Your task to perform on an android device: open a new tab in the chrome app Image 0: 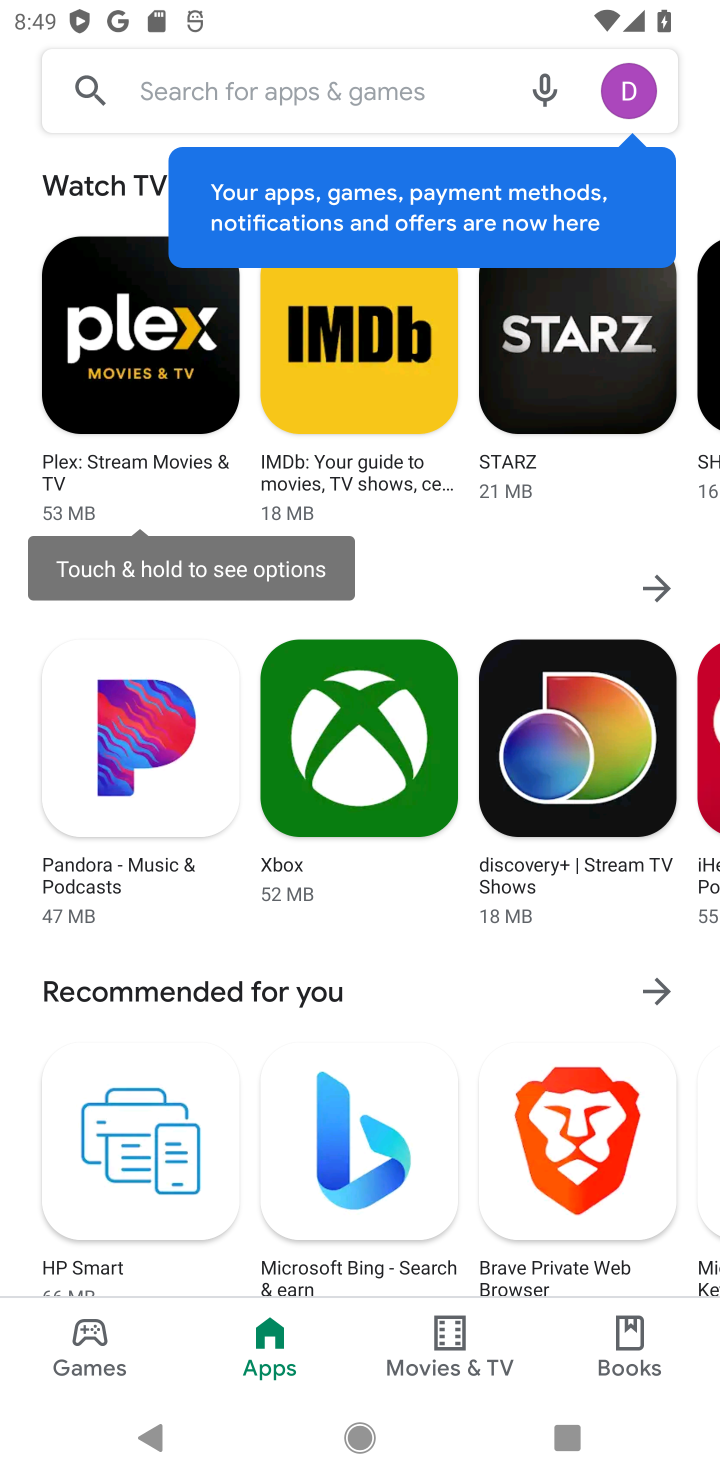
Step 0: press home button
Your task to perform on an android device: open a new tab in the chrome app Image 1: 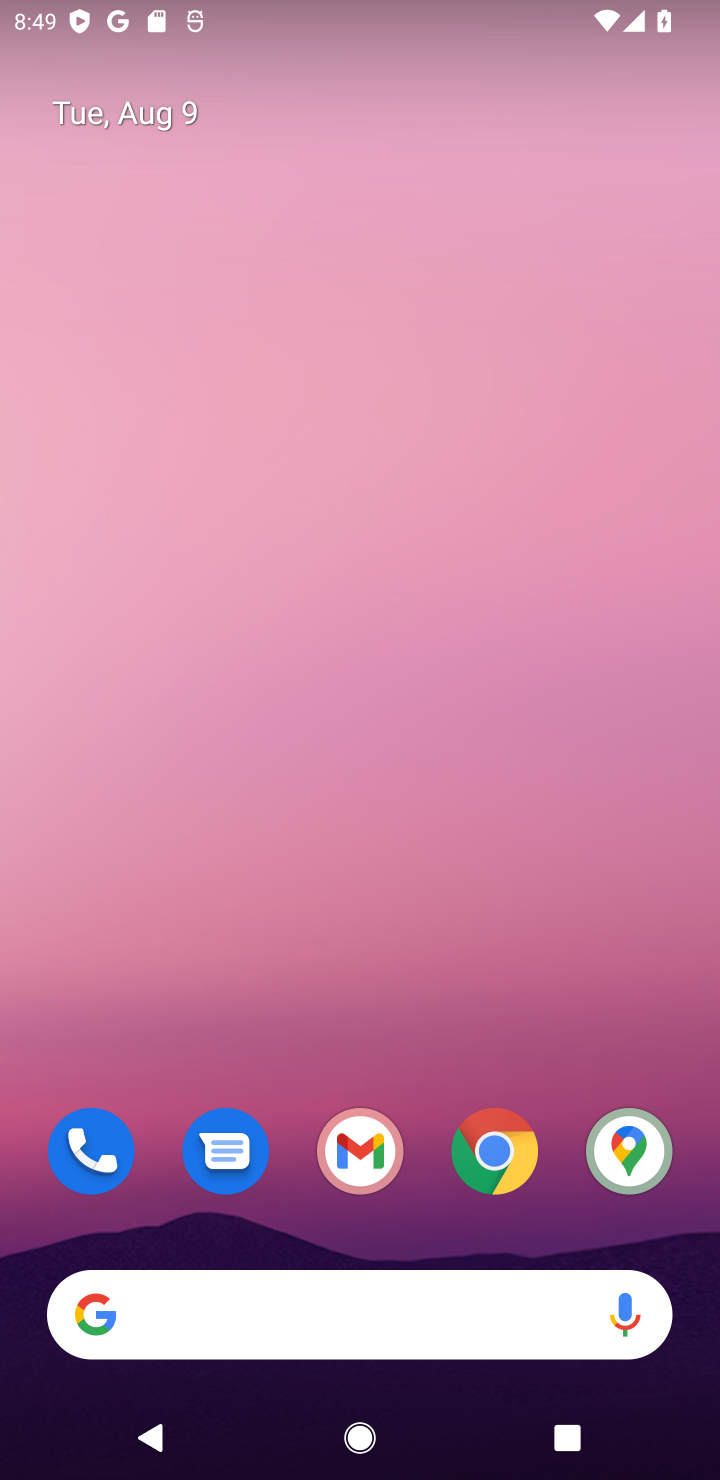
Step 1: click (496, 1141)
Your task to perform on an android device: open a new tab in the chrome app Image 2: 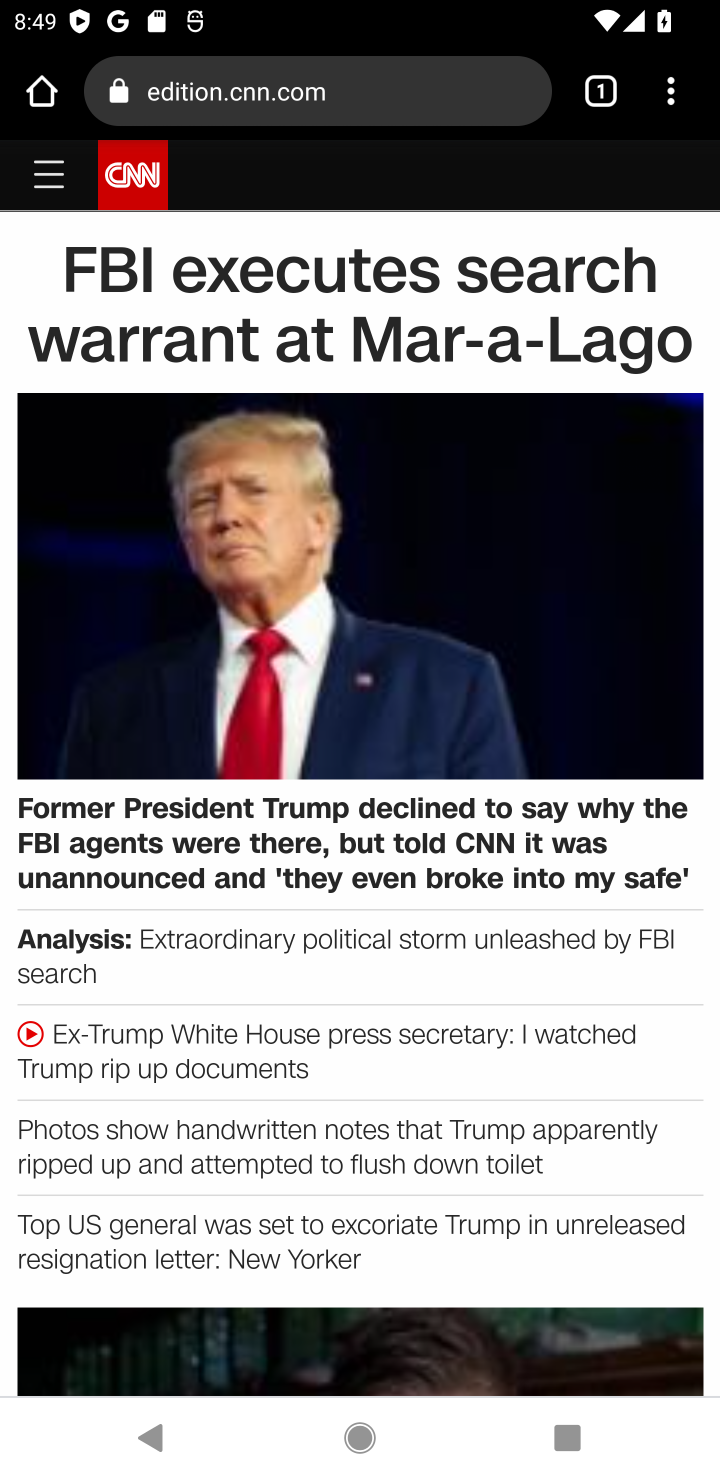
Step 2: click (595, 83)
Your task to perform on an android device: open a new tab in the chrome app Image 3: 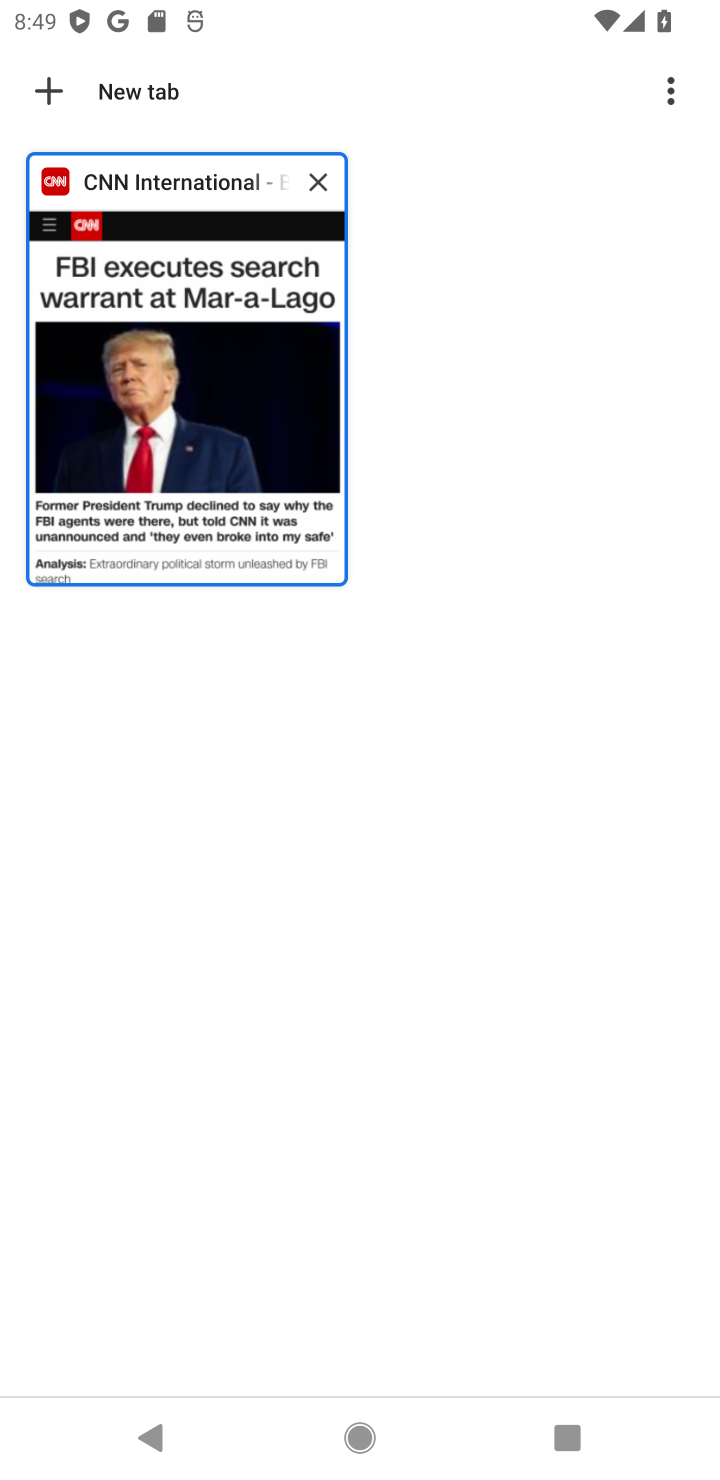
Step 3: click (40, 88)
Your task to perform on an android device: open a new tab in the chrome app Image 4: 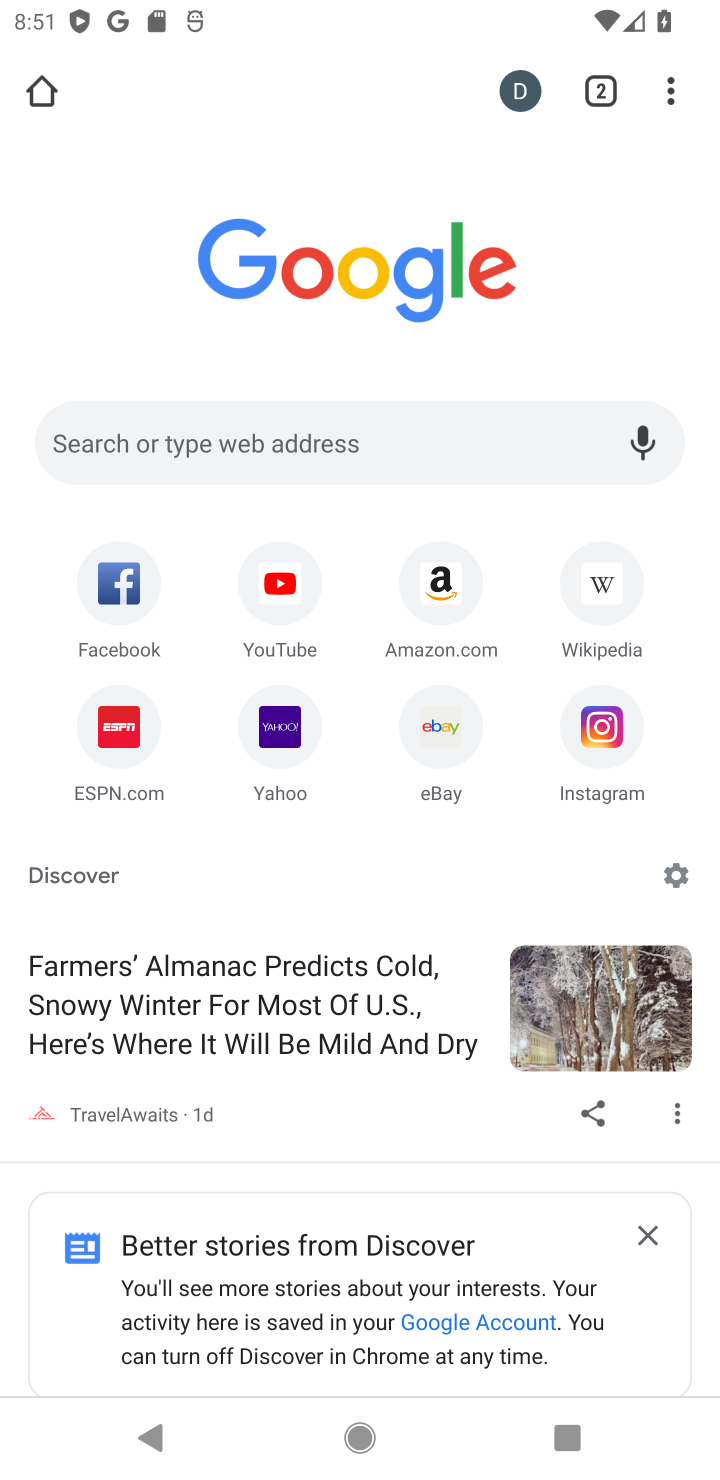
Step 4: task complete